Your task to perform on an android device: check android version Image 0: 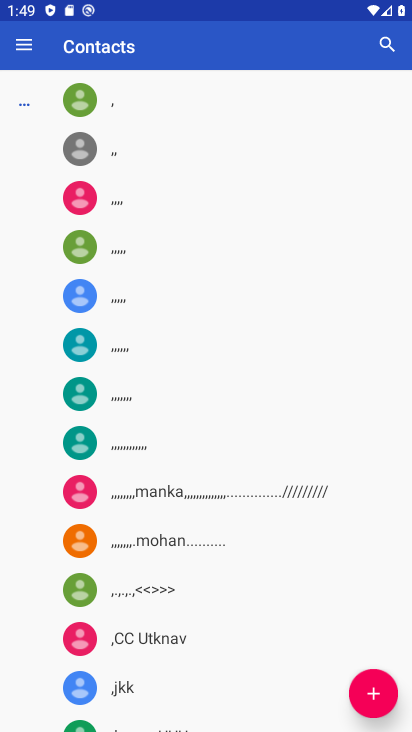
Step 0: press home button
Your task to perform on an android device: check android version Image 1: 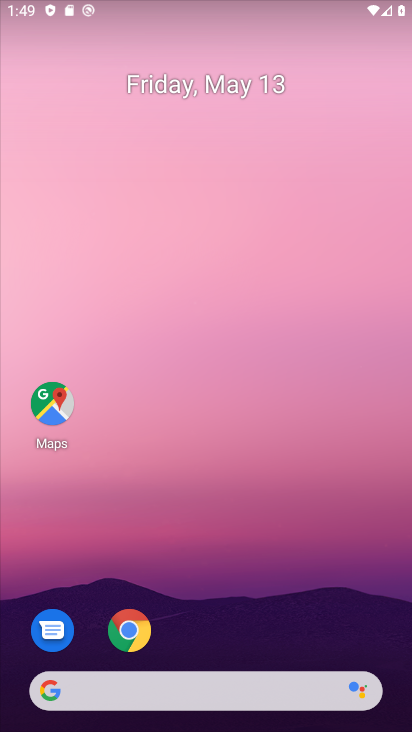
Step 1: drag from (265, 619) to (249, 143)
Your task to perform on an android device: check android version Image 2: 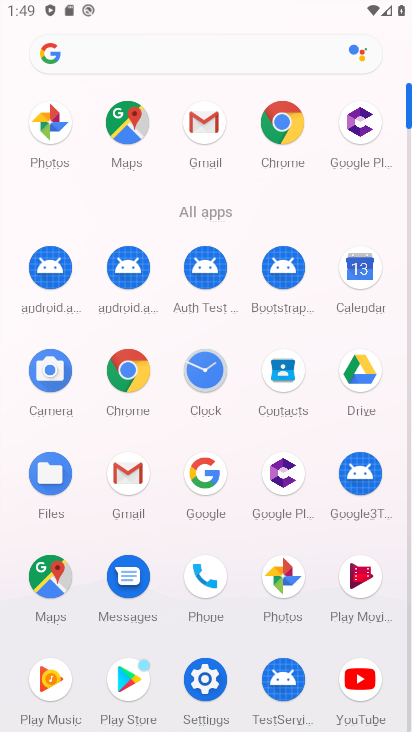
Step 2: click (218, 664)
Your task to perform on an android device: check android version Image 3: 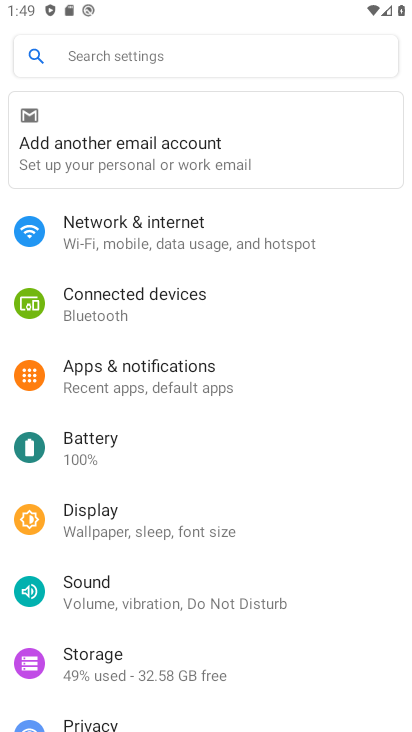
Step 3: drag from (217, 670) to (225, 254)
Your task to perform on an android device: check android version Image 4: 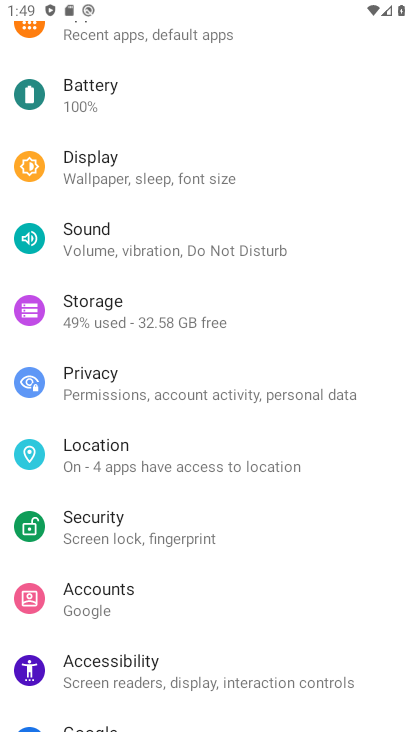
Step 4: drag from (174, 596) to (177, 281)
Your task to perform on an android device: check android version Image 5: 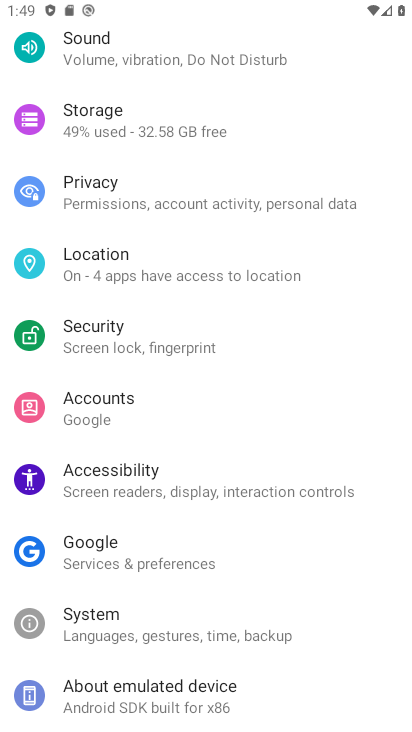
Step 5: drag from (230, 649) to (225, 327)
Your task to perform on an android device: check android version Image 6: 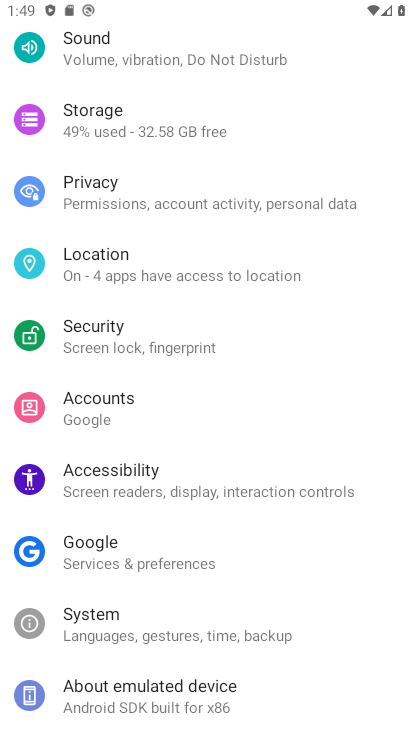
Step 6: click (175, 689)
Your task to perform on an android device: check android version Image 7: 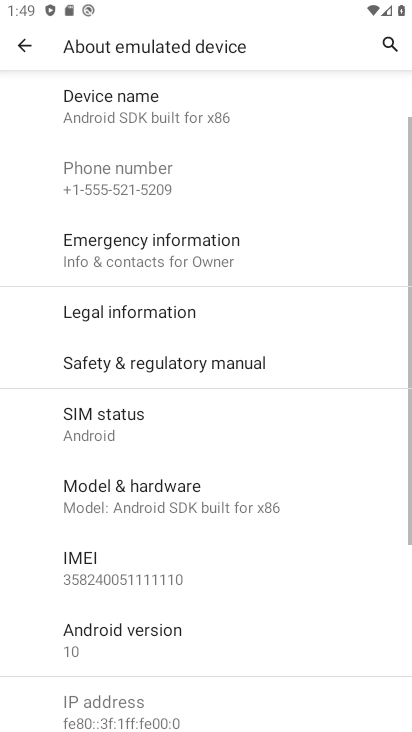
Step 7: click (202, 648)
Your task to perform on an android device: check android version Image 8: 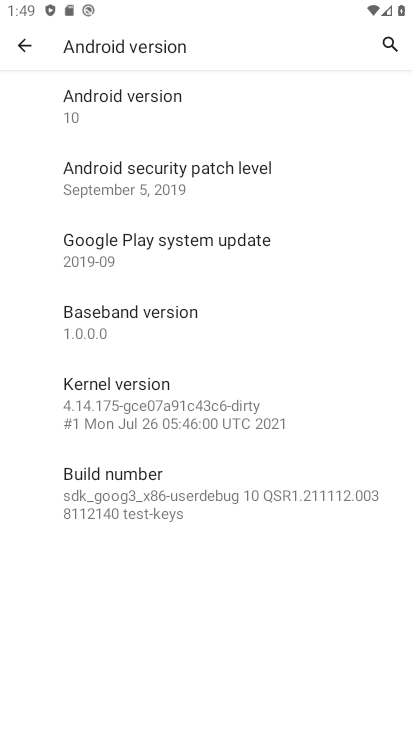
Step 8: task complete